Your task to perform on an android device: allow notifications from all sites in the chrome app Image 0: 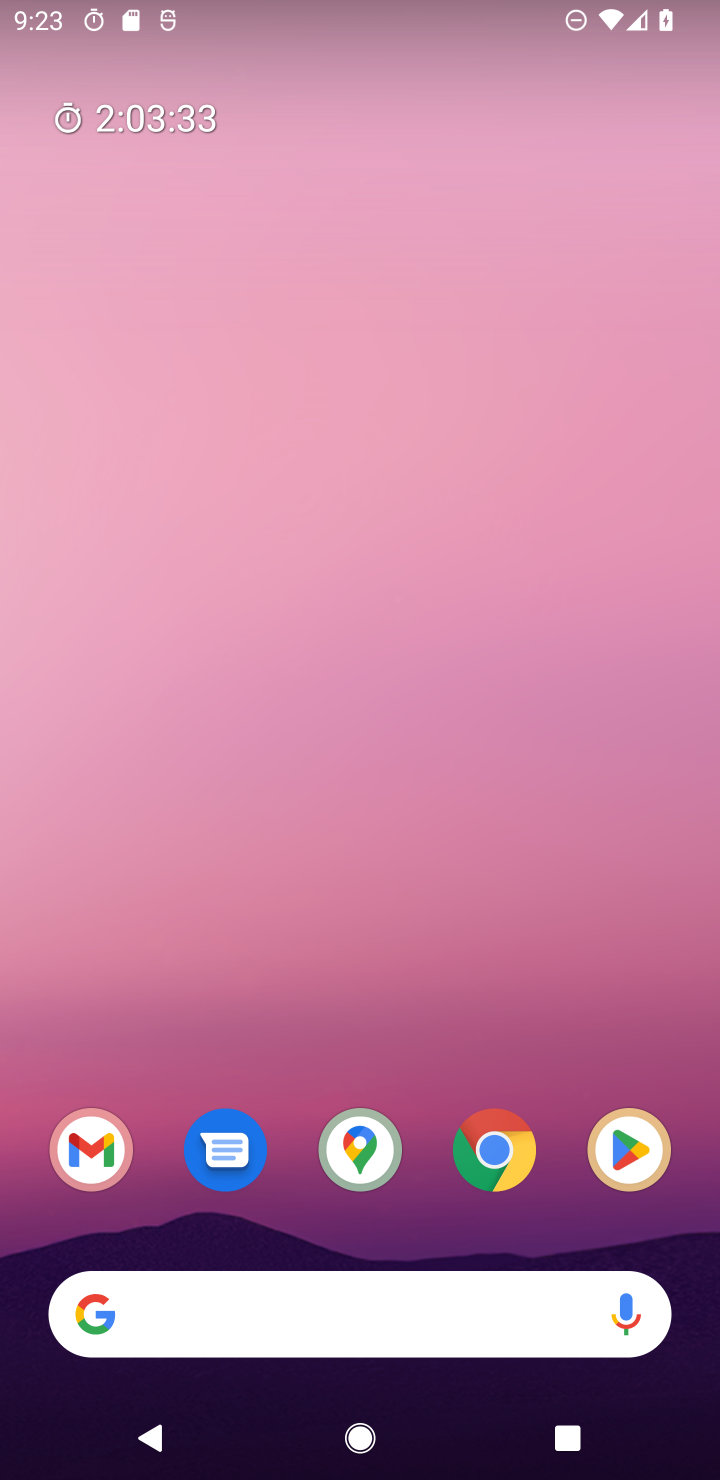
Step 0: drag from (570, 1282) to (605, 12)
Your task to perform on an android device: allow notifications from all sites in the chrome app Image 1: 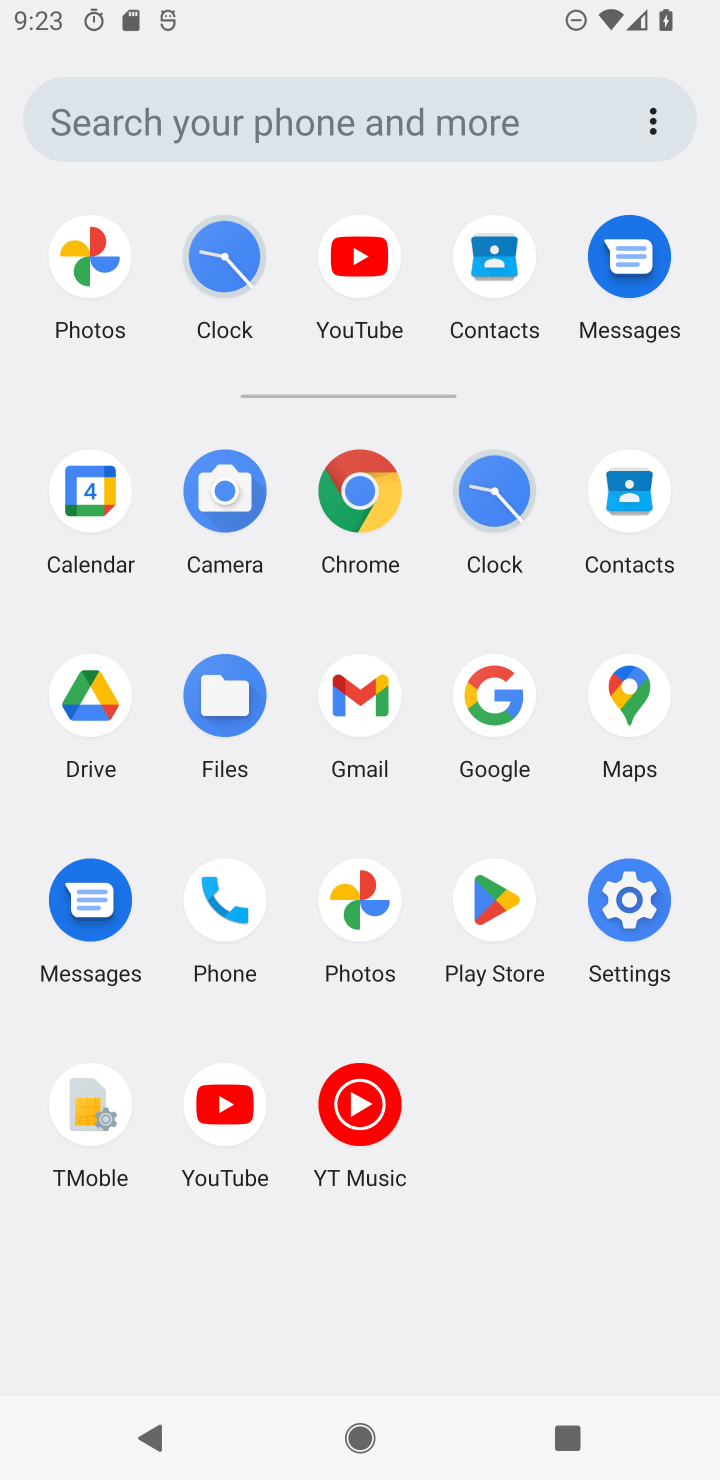
Step 1: click (365, 503)
Your task to perform on an android device: allow notifications from all sites in the chrome app Image 2: 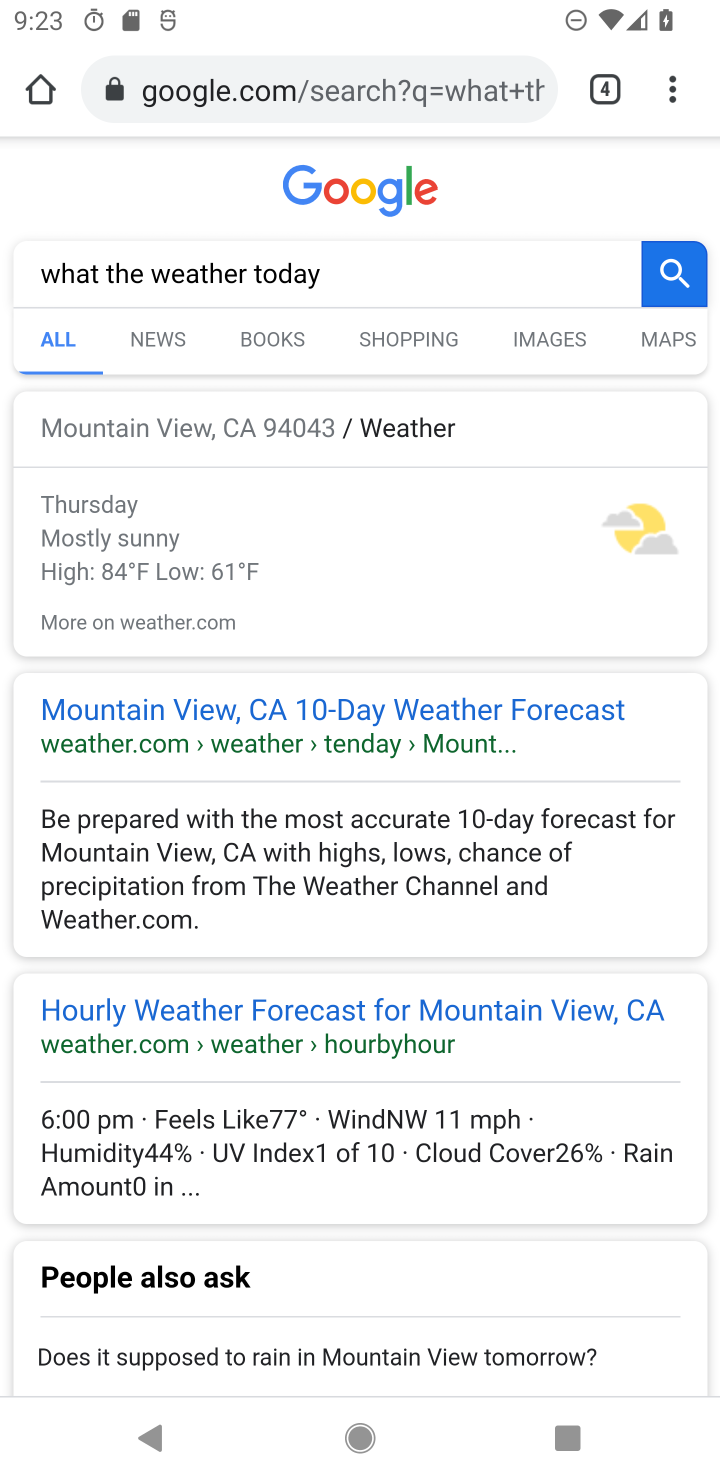
Step 2: drag from (667, 74) to (415, 1142)
Your task to perform on an android device: allow notifications from all sites in the chrome app Image 3: 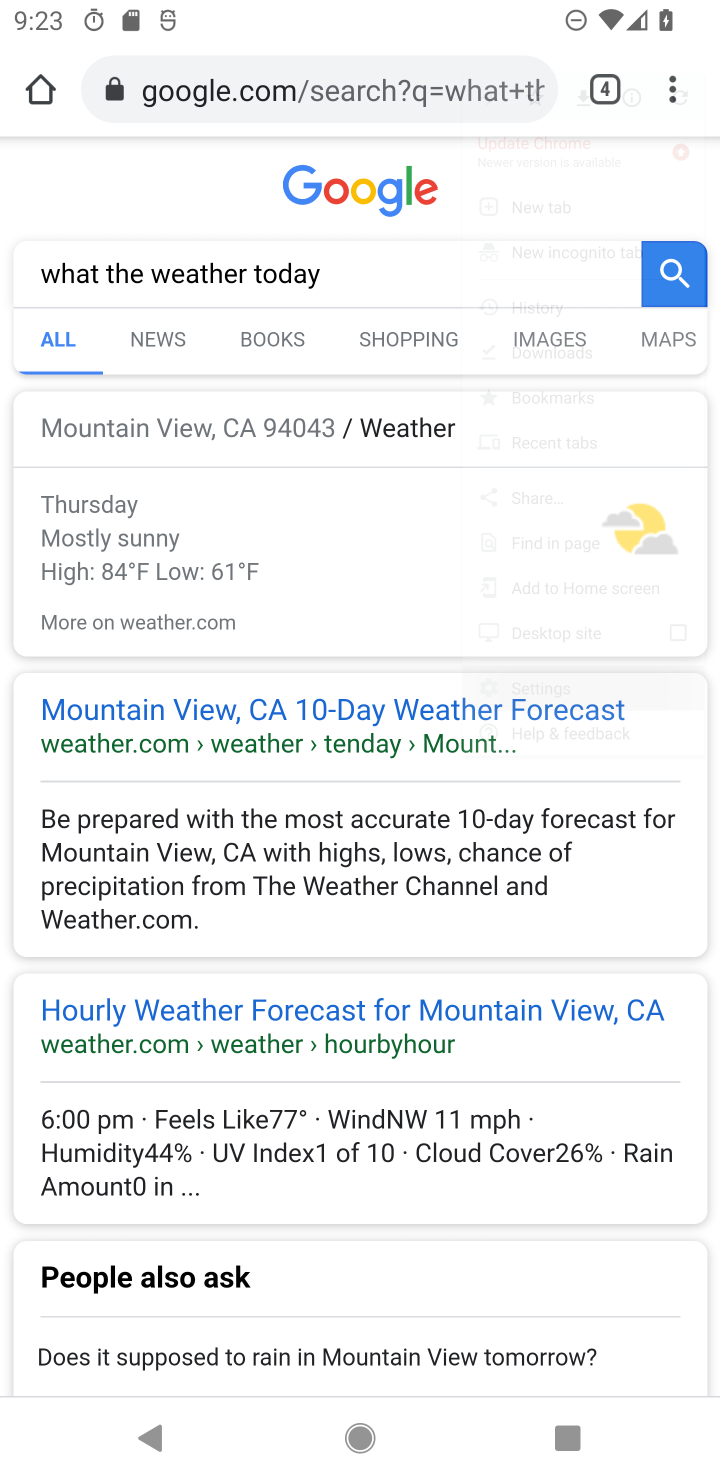
Step 3: click (415, 1142)
Your task to perform on an android device: allow notifications from all sites in the chrome app Image 4: 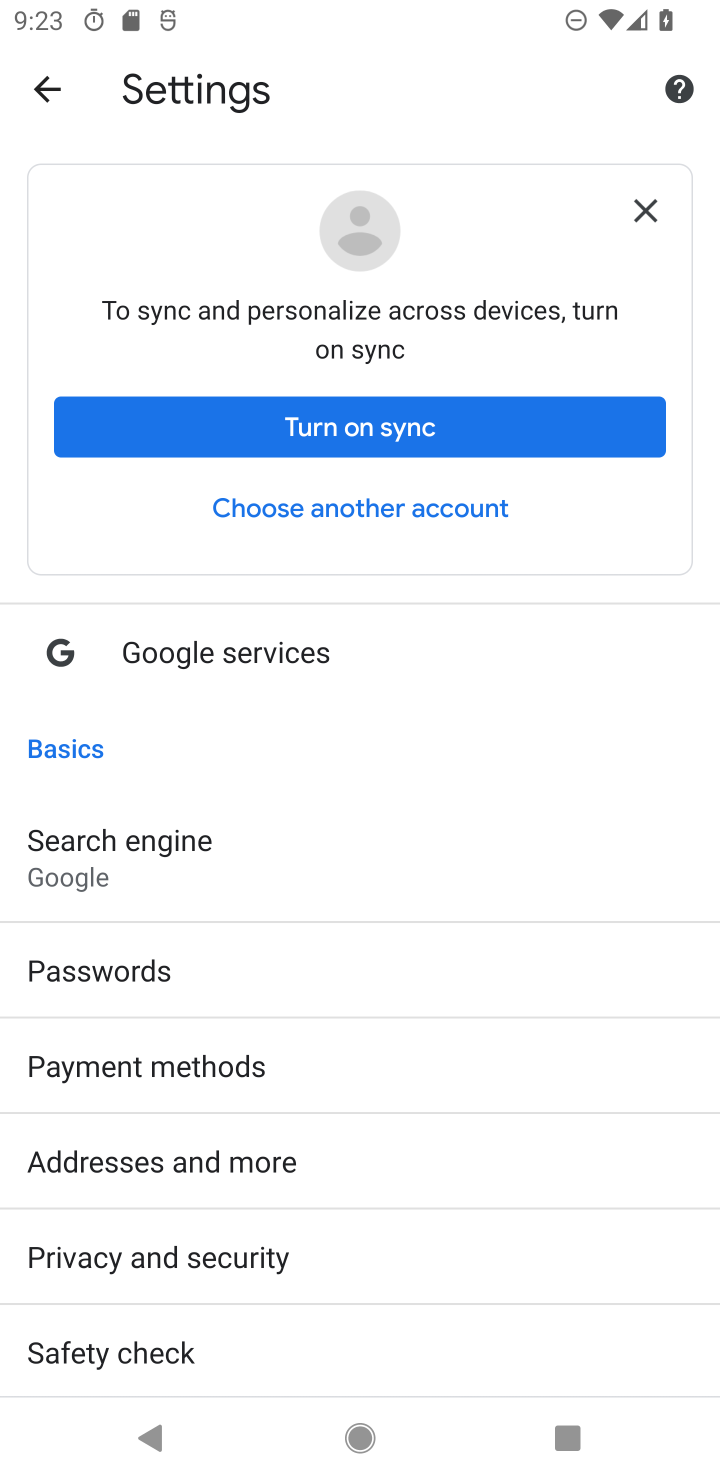
Step 4: drag from (242, 1159) to (332, 348)
Your task to perform on an android device: allow notifications from all sites in the chrome app Image 5: 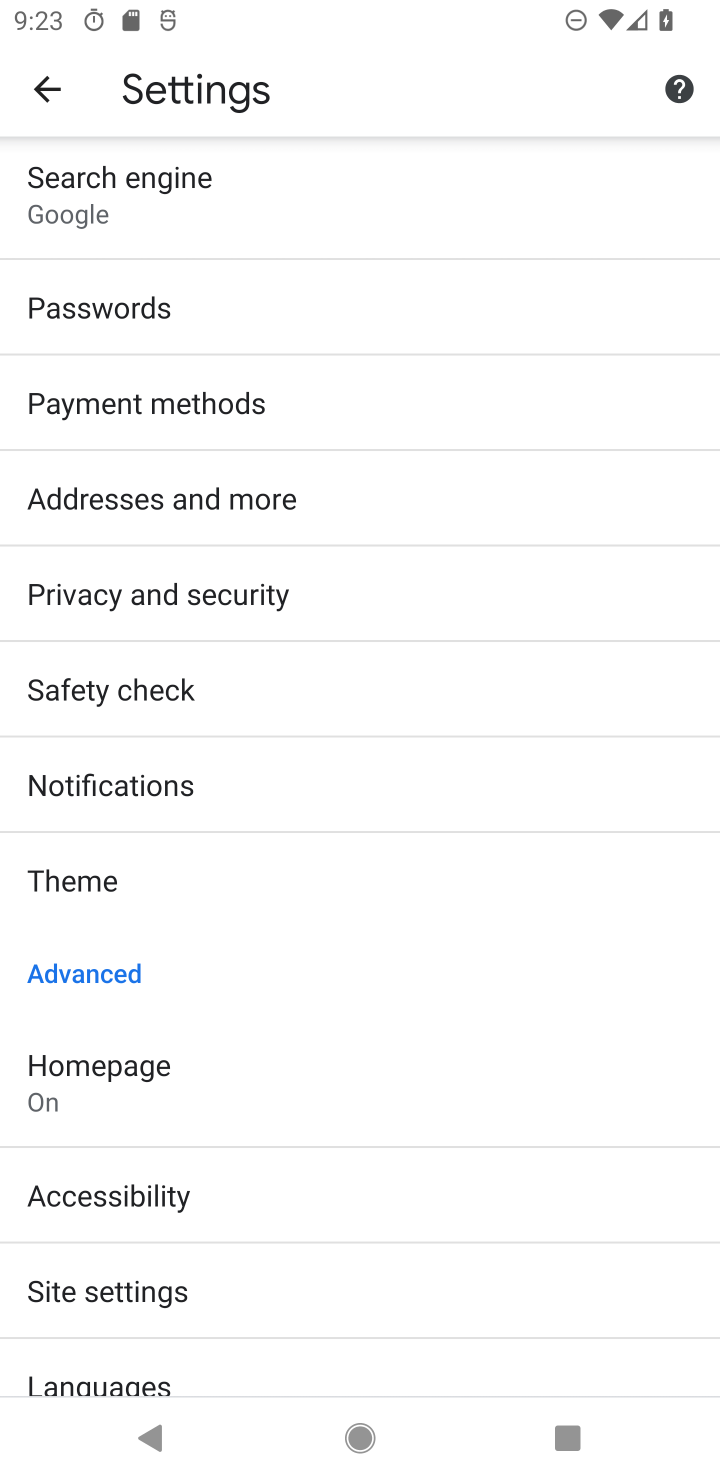
Step 5: click (128, 753)
Your task to perform on an android device: allow notifications from all sites in the chrome app Image 6: 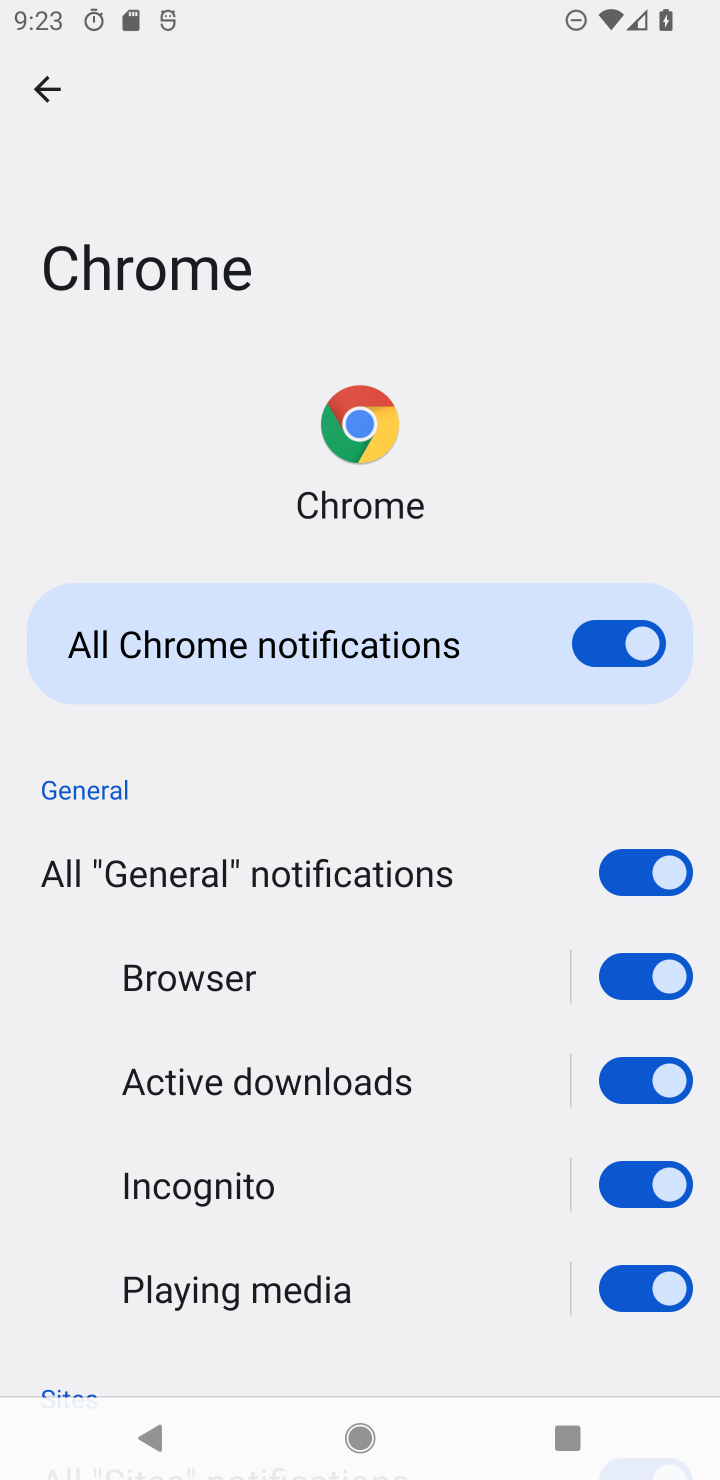
Step 6: task complete